Your task to perform on an android device: toggle show notifications on the lock screen Image 0: 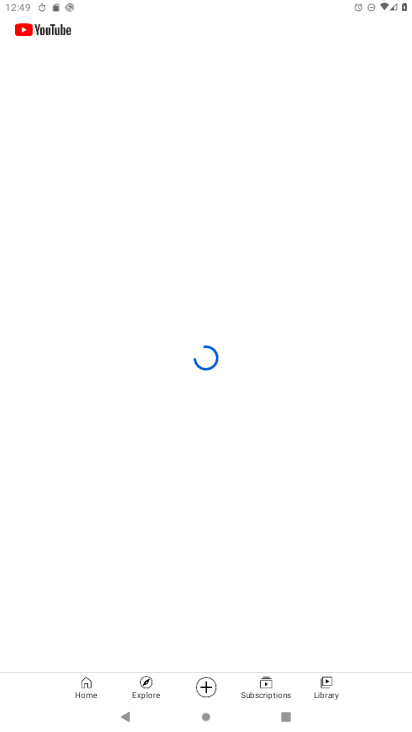
Step 0: click (237, 163)
Your task to perform on an android device: toggle show notifications on the lock screen Image 1: 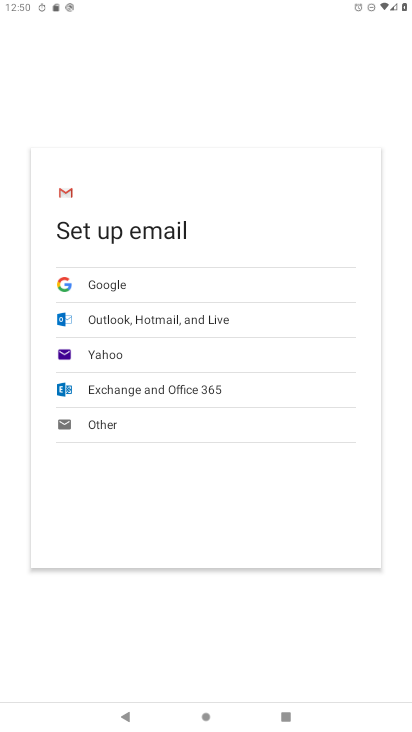
Step 1: press home button
Your task to perform on an android device: toggle show notifications on the lock screen Image 2: 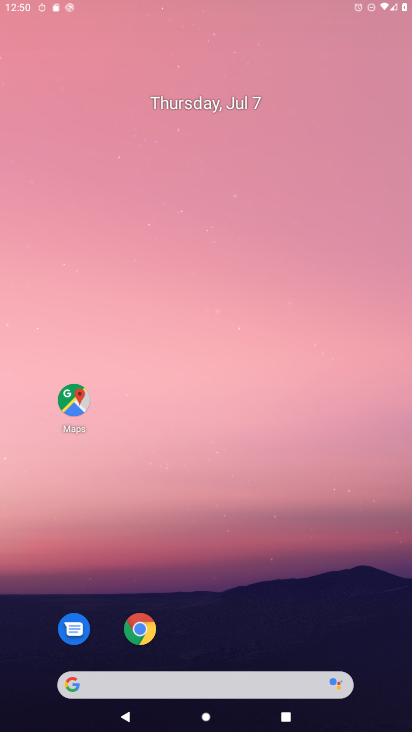
Step 2: drag from (210, 555) to (228, 163)
Your task to perform on an android device: toggle show notifications on the lock screen Image 3: 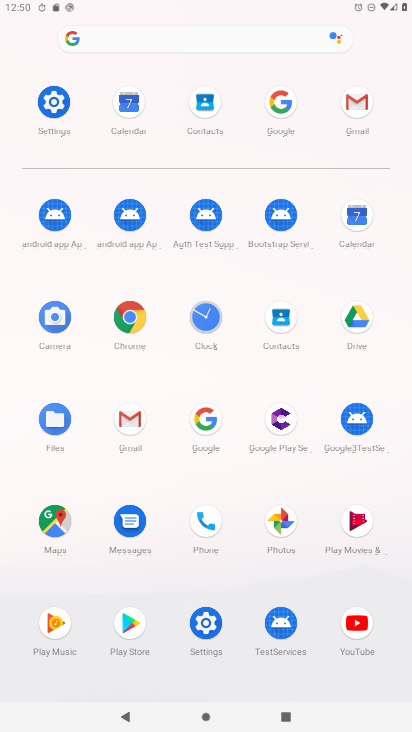
Step 3: click (60, 94)
Your task to perform on an android device: toggle show notifications on the lock screen Image 4: 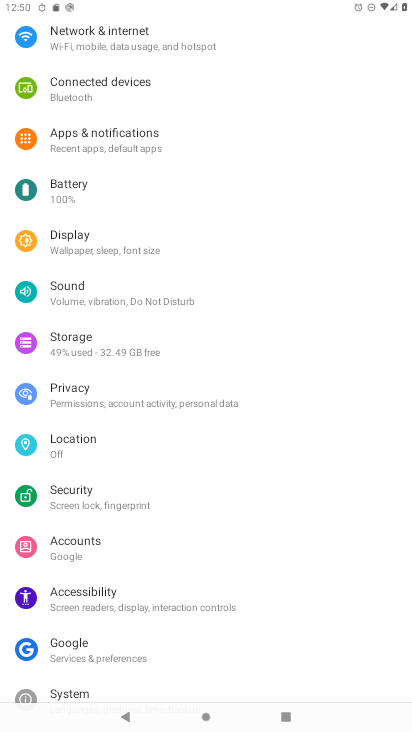
Step 4: click (134, 154)
Your task to perform on an android device: toggle show notifications on the lock screen Image 5: 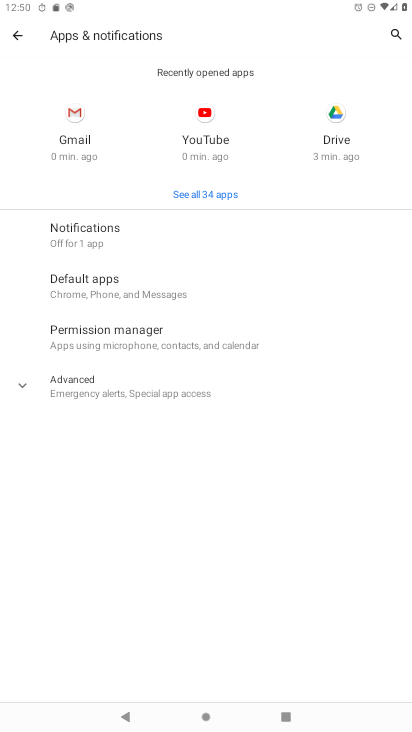
Step 5: click (168, 245)
Your task to perform on an android device: toggle show notifications on the lock screen Image 6: 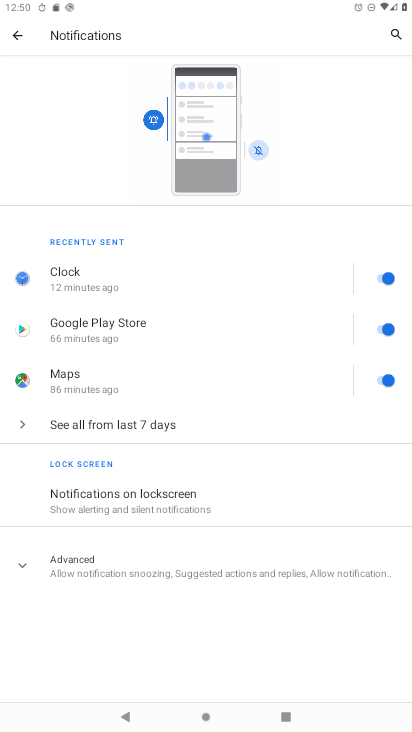
Step 6: click (132, 490)
Your task to perform on an android device: toggle show notifications on the lock screen Image 7: 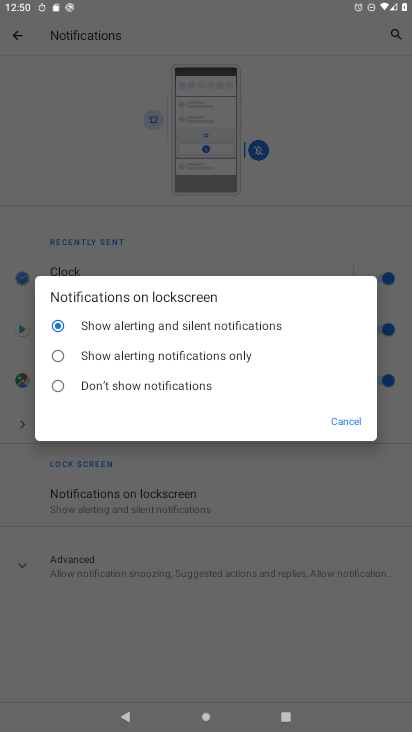
Step 7: click (103, 389)
Your task to perform on an android device: toggle show notifications on the lock screen Image 8: 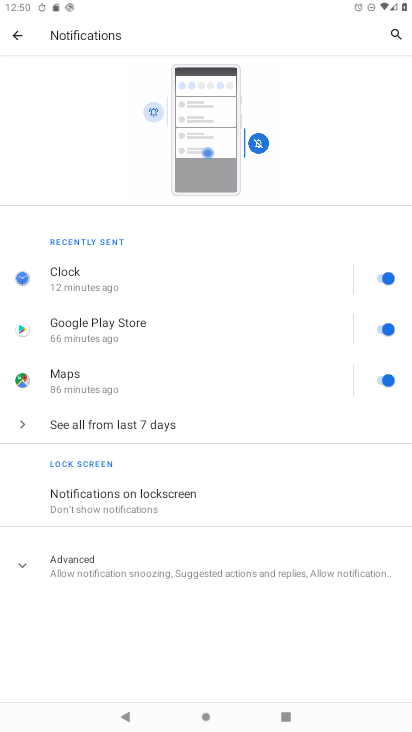
Step 8: task complete